Your task to perform on an android device: turn on location history Image 0: 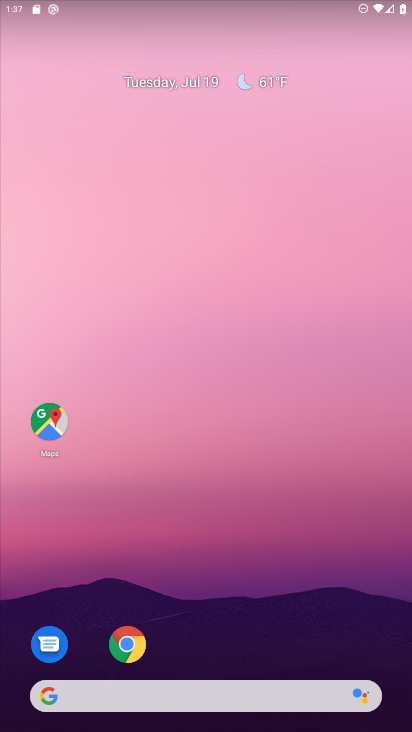
Step 0: click (343, 0)
Your task to perform on an android device: turn on location history Image 1: 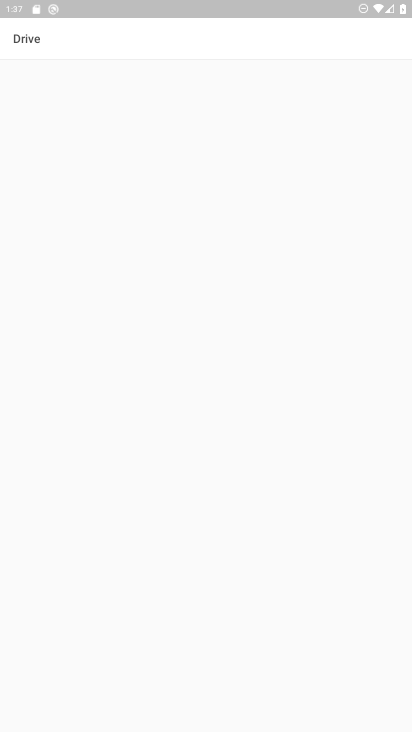
Step 1: press home button
Your task to perform on an android device: turn on location history Image 2: 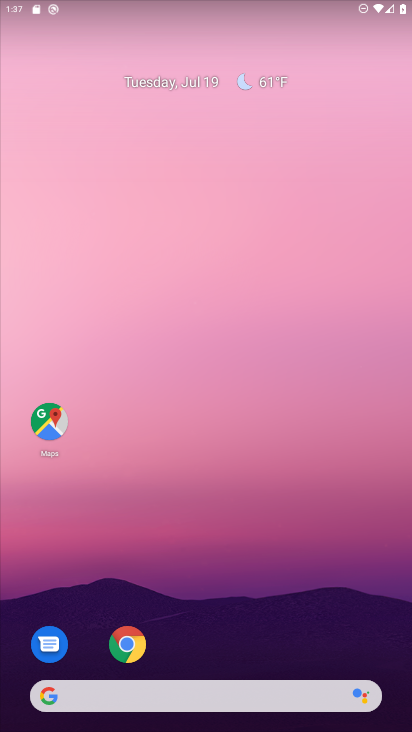
Step 2: drag from (392, 688) to (343, 83)
Your task to perform on an android device: turn on location history Image 3: 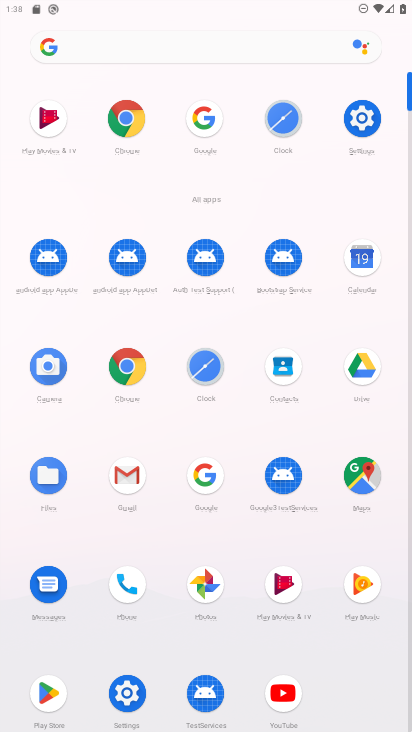
Step 3: click (352, 125)
Your task to perform on an android device: turn on location history Image 4: 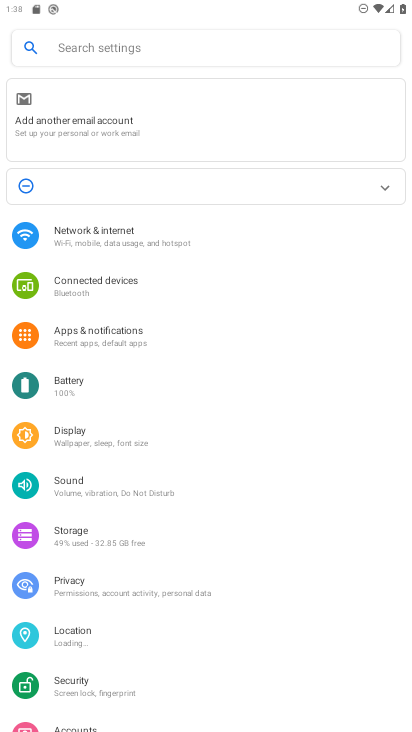
Step 4: click (67, 634)
Your task to perform on an android device: turn on location history Image 5: 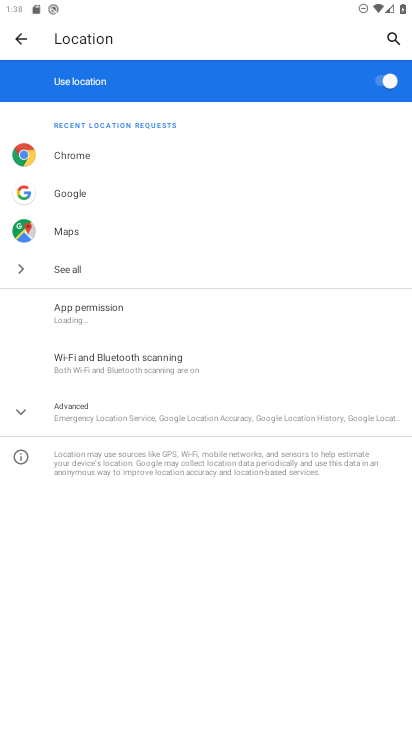
Step 5: click (19, 416)
Your task to perform on an android device: turn on location history Image 6: 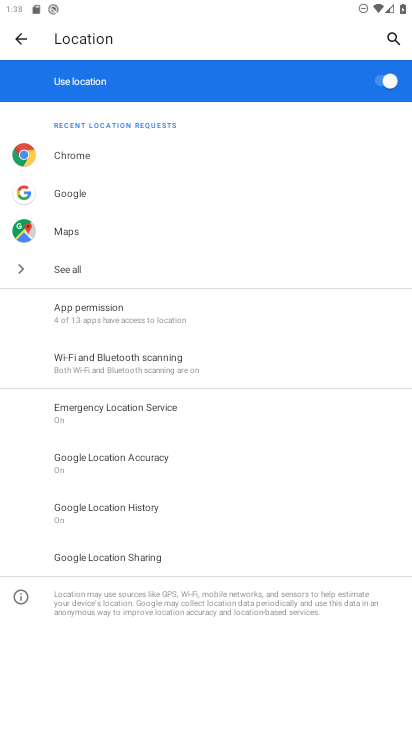
Step 6: task complete